Your task to perform on an android device: Open maps Image 0: 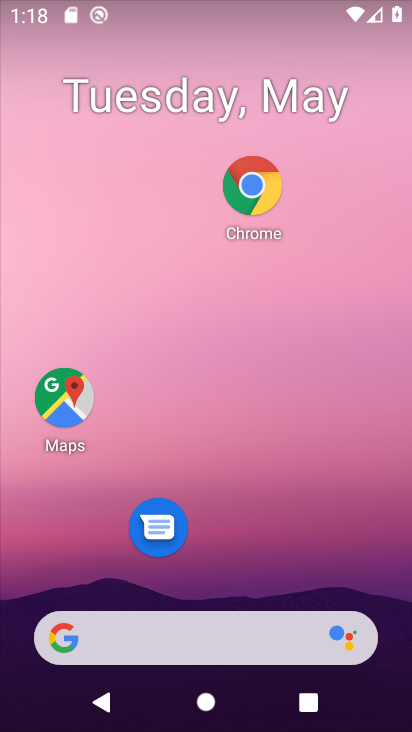
Step 0: click (69, 393)
Your task to perform on an android device: Open maps Image 1: 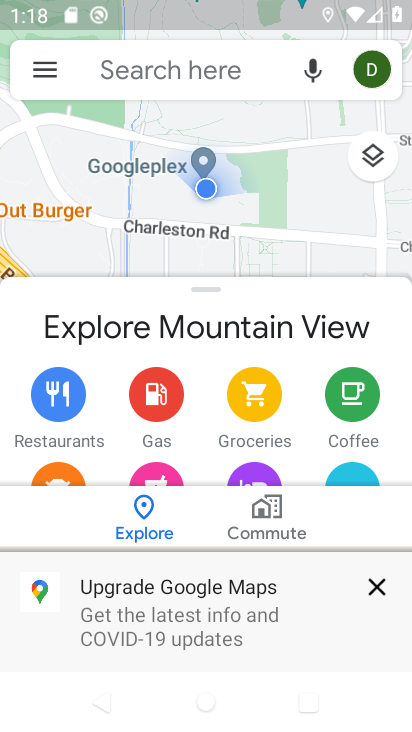
Step 1: task complete